Your task to perform on an android device: Open Amazon Image 0: 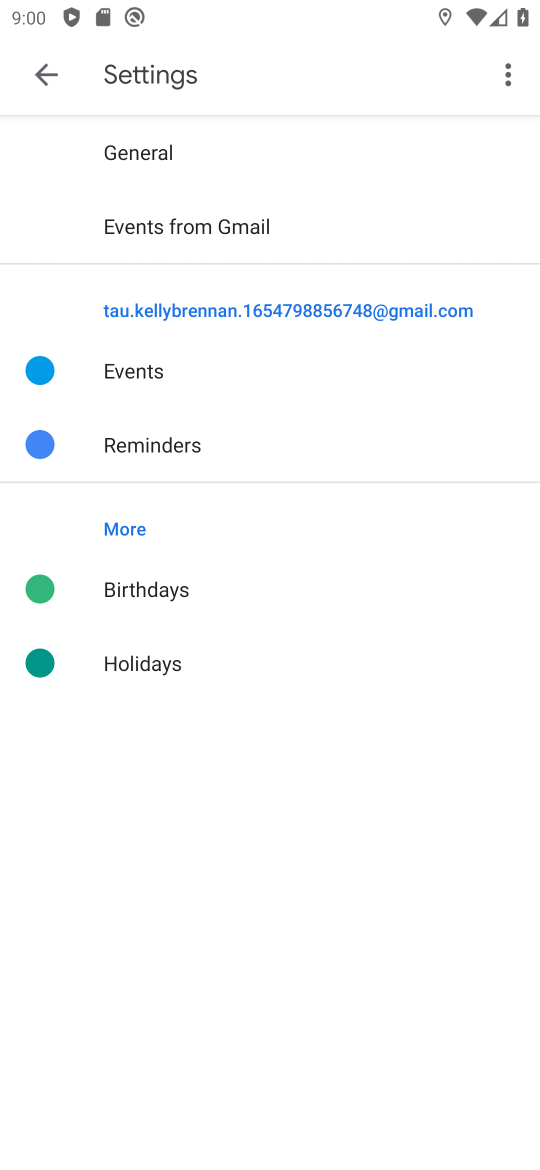
Step 0: press home button
Your task to perform on an android device: Open Amazon Image 1: 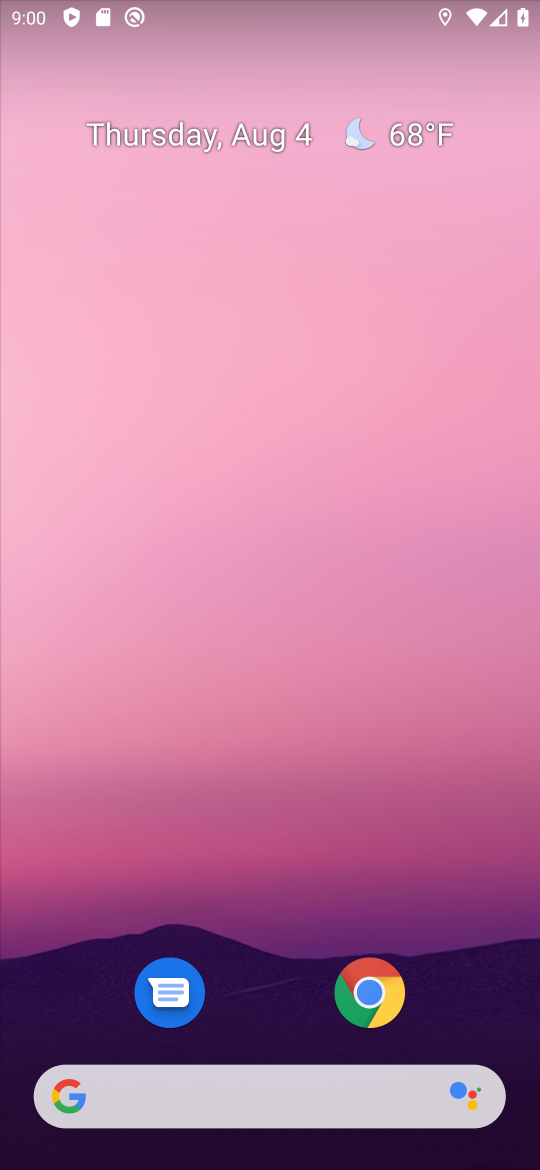
Step 1: click (381, 992)
Your task to perform on an android device: Open Amazon Image 2: 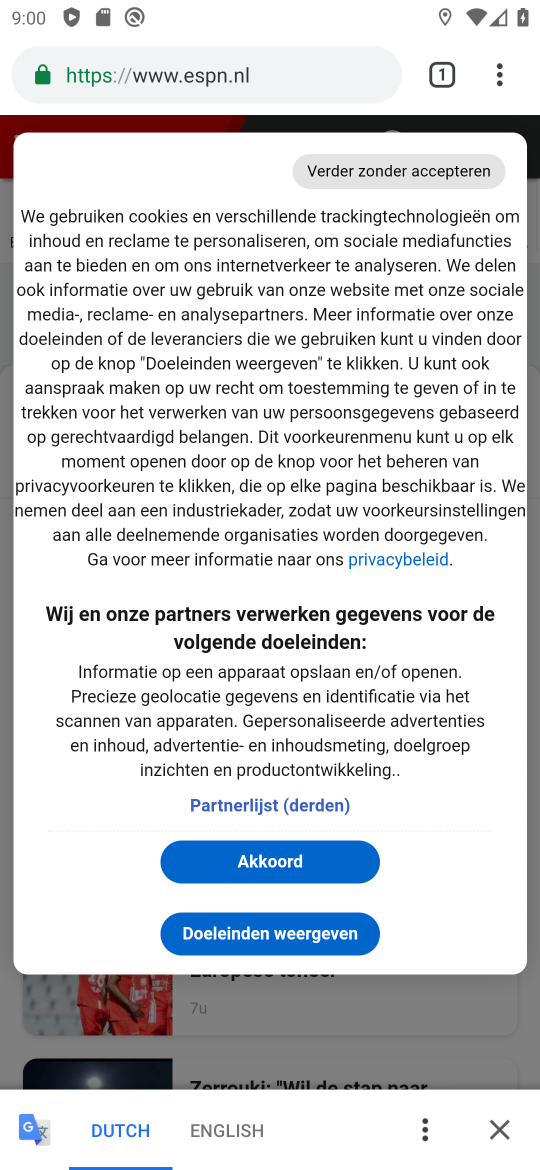
Step 2: click (446, 80)
Your task to perform on an android device: Open Amazon Image 3: 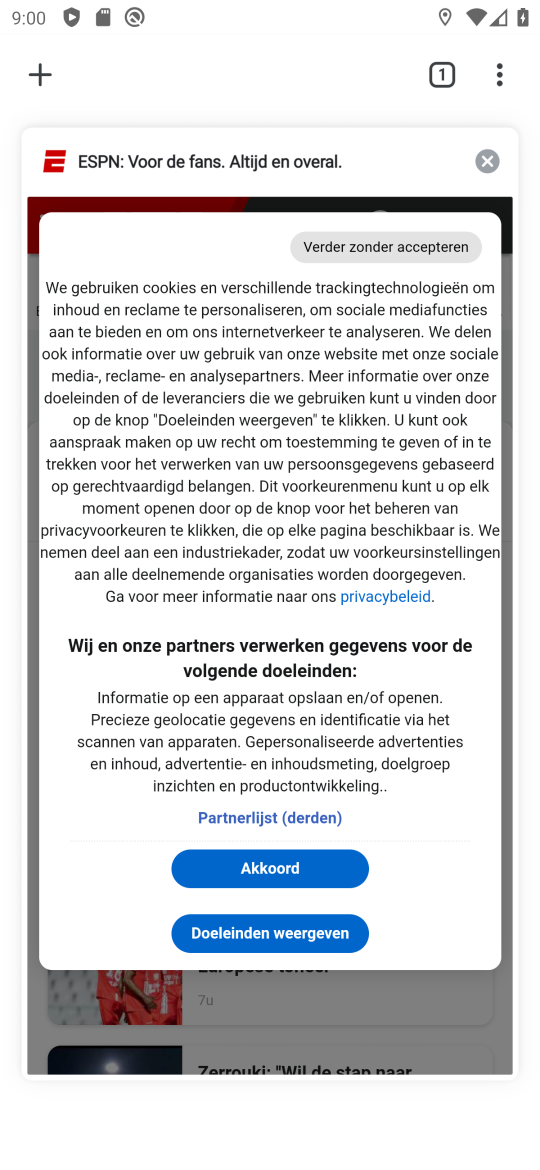
Step 3: click (486, 153)
Your task to perform on an android device: Open Amazon Image 4: 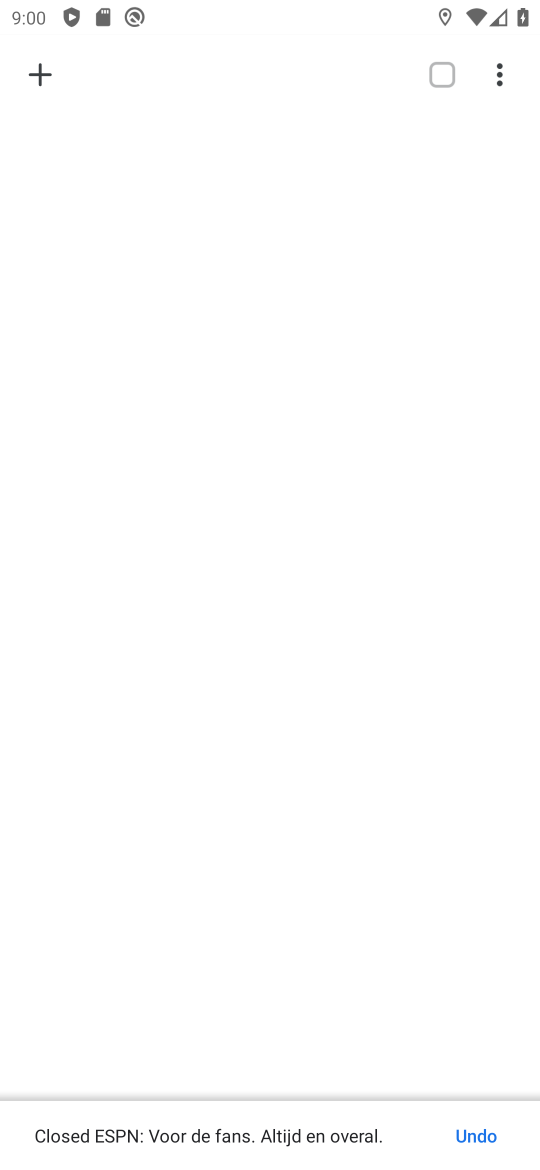
Step 4: click (42, 83)
Your task to perform on an android device: Open Amazon Image 5: 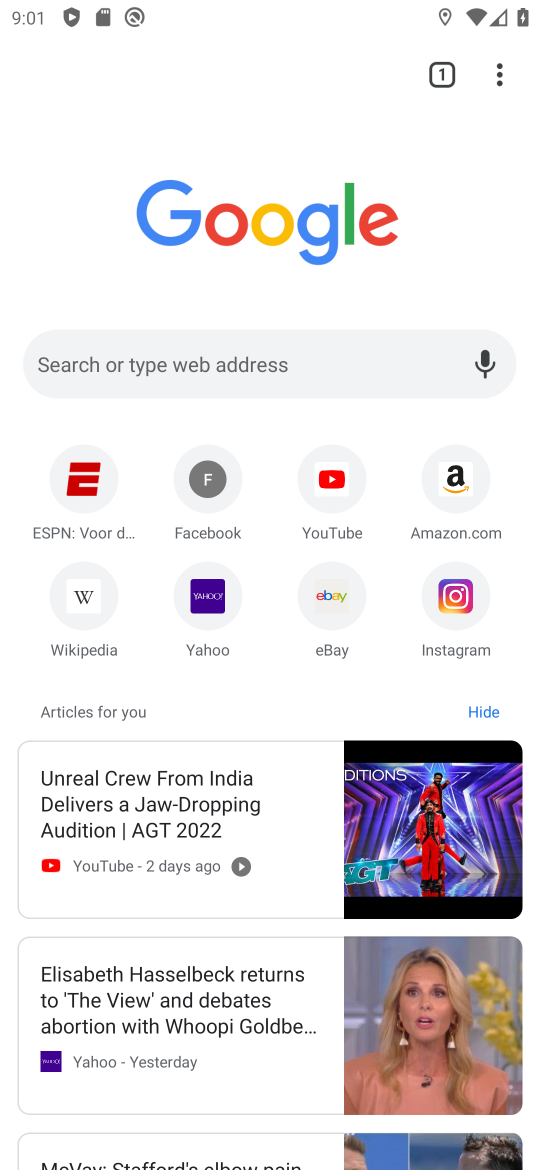
Step 5: click (458, 462)
Your task to perform on an android device: Open Amazon Image 6: 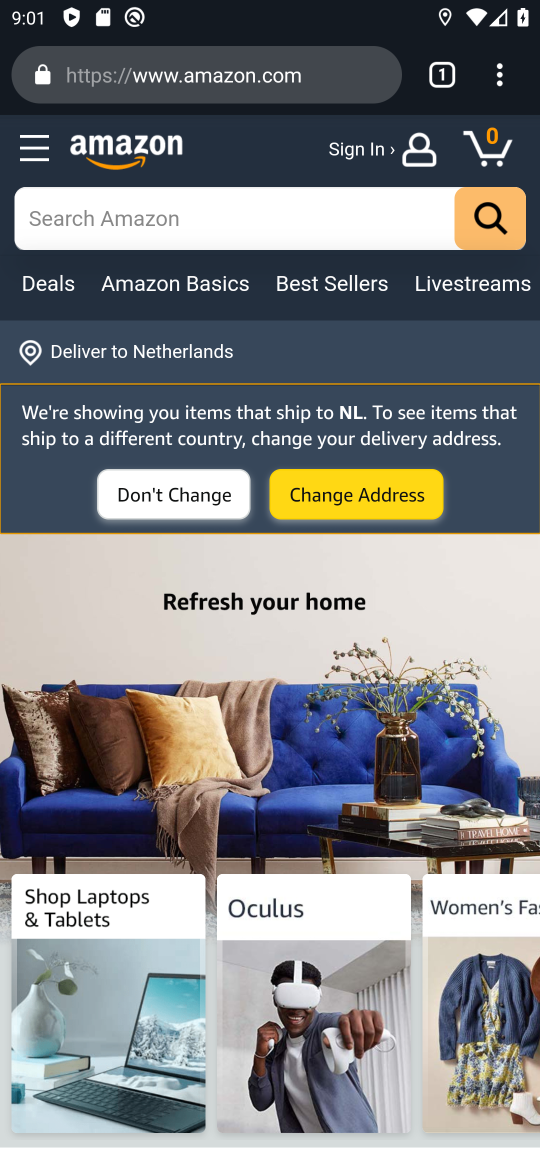
Step 6: task complete